Your task to perform on an android device: Show me recent news Image 0: 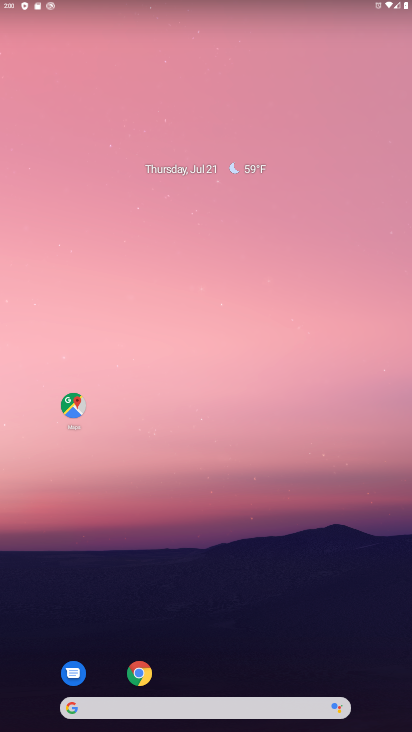
Step 0: drag from (210, 703) to (223, 124)
Your task to perform on an android device: Show me recent news Image 1: 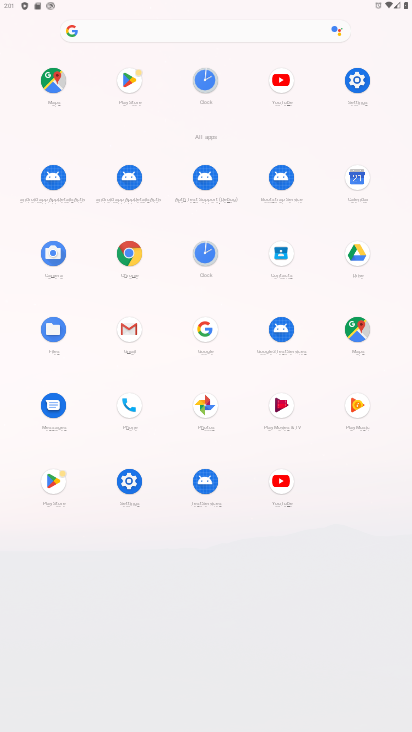
Step 1: click (206, 326)
Your task to perform on an android device: Show me recent news Image 2: 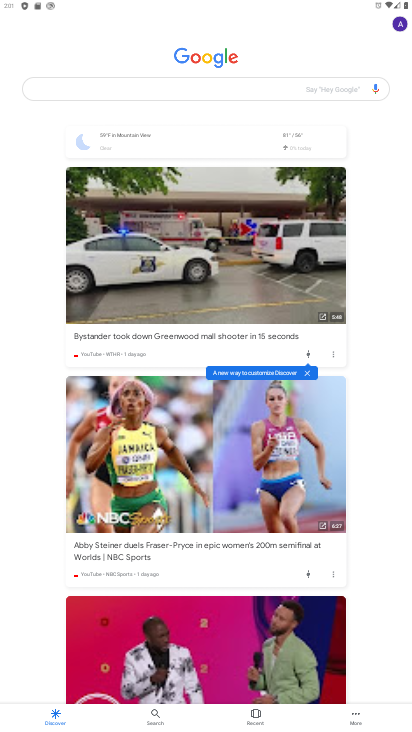
Step 2: click (322, 88)
Your task to perform on an android device: Show me recent news Image 3: 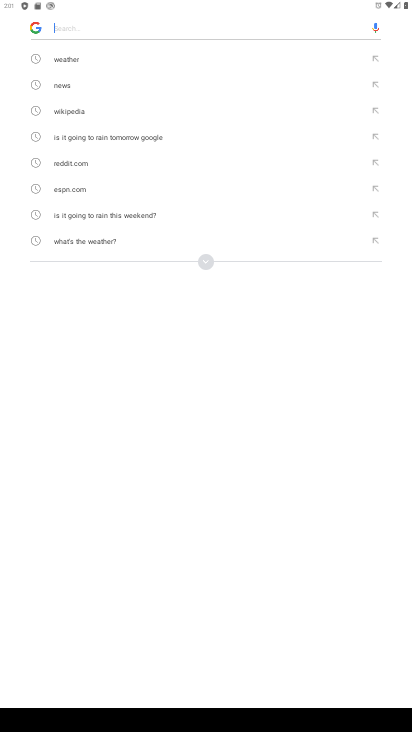
Step 3: type "recent news"
Your task to perform on an android device: Show me recent news Image 4: 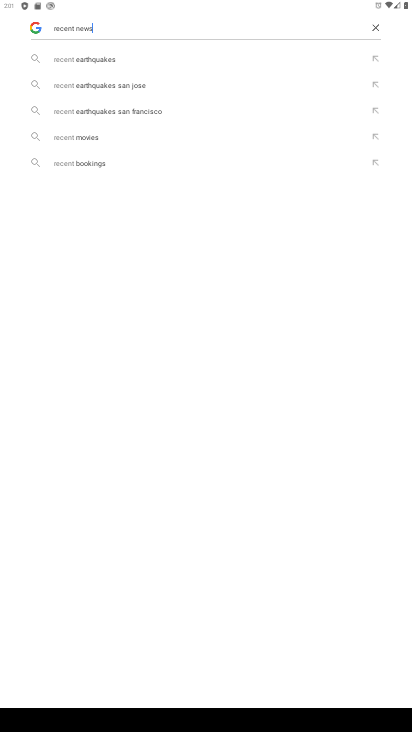
Step 4: type ""
Your task to perform on an android device: Show me recent news Image 5: 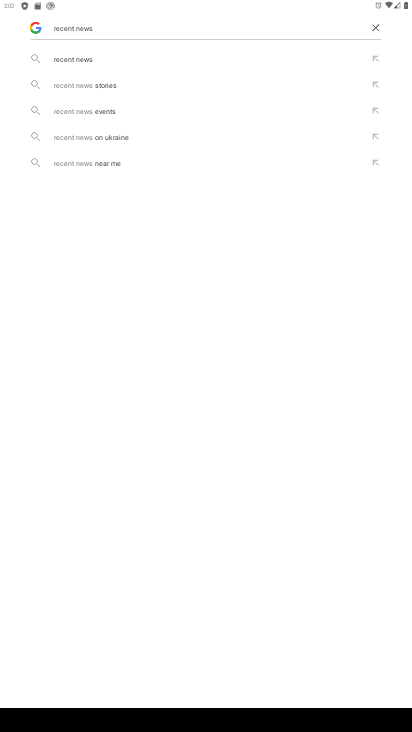
Step 5: click (84, 59)
Your task to perform on an android device: Show me recent news Image 6: 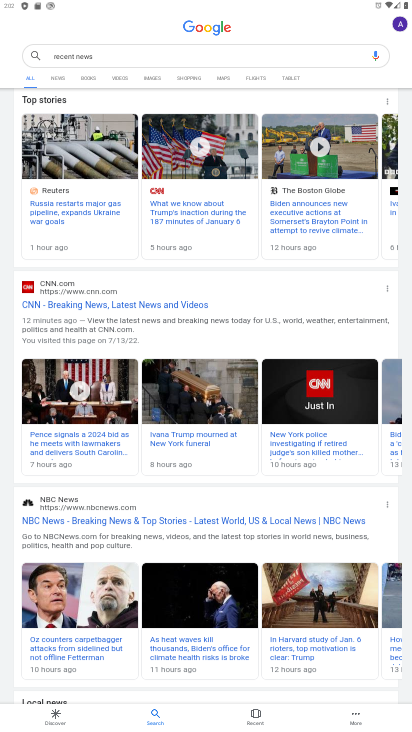
Step 6: click (73, 210)
Your task to perform on an android device: Show me recent news Image 7: 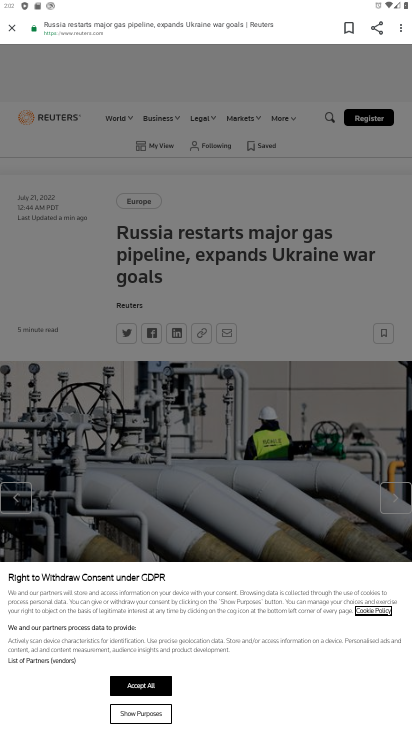
Step 7: click (156, 683)
Your task to perform on an android device: Show me recent news Image 8: 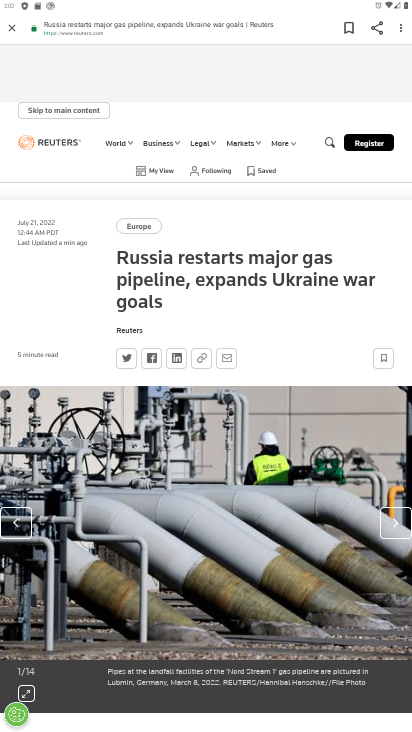
Step 8: task complete